Your task to perform on an android device: Open eBay Image 0: 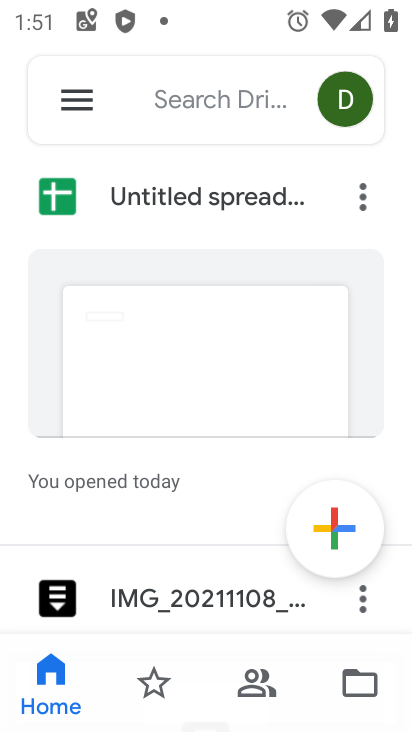
Step 0: press home button
Your task to perform on an android device: Open eBay Image 1: 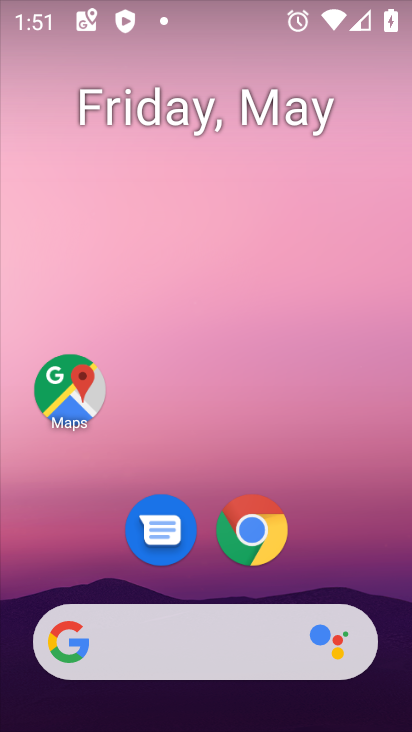
Step 1: click (257, 524)
Your task to perform on an android device: Open eBay Image 2: 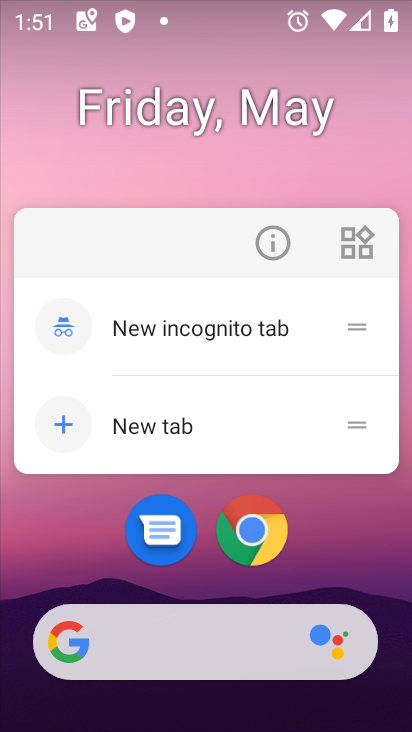
Step 2: click (273, 517)
Your task to perform on an android device: Open eBay Image 3: 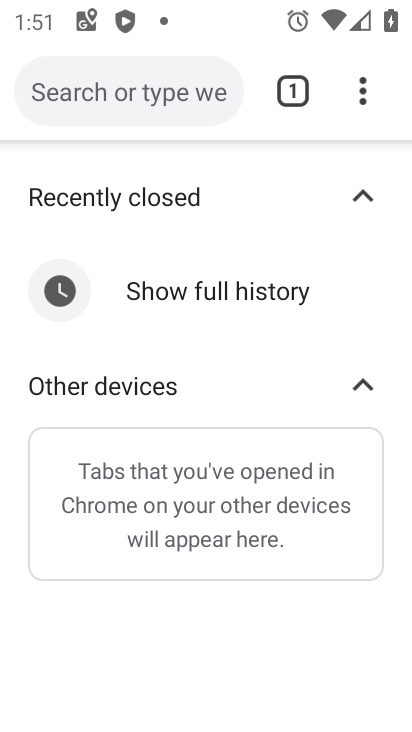
Step 3: click (148, 94)
Your task to perform on an android device: Open eBay Image 4: 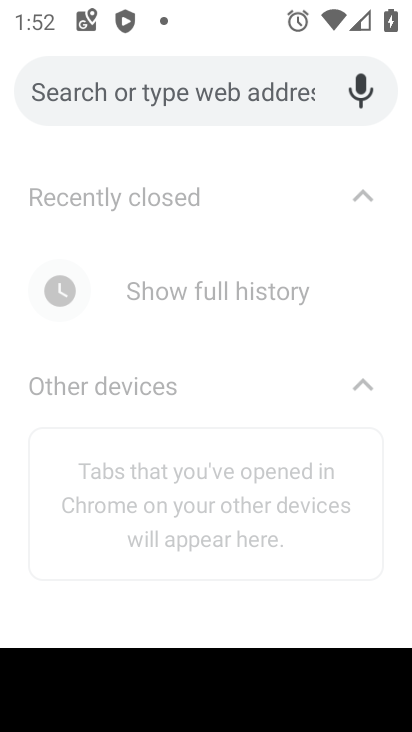
Step 4: type "ebay"
Your task to perform on an android device: Open eBay Image 5: 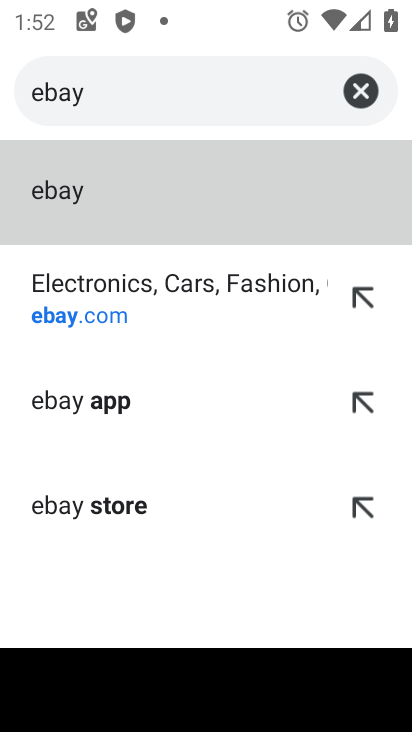
Step 5: click (127, 198)
Your task to perform on an android device: Open eBay Image 6: 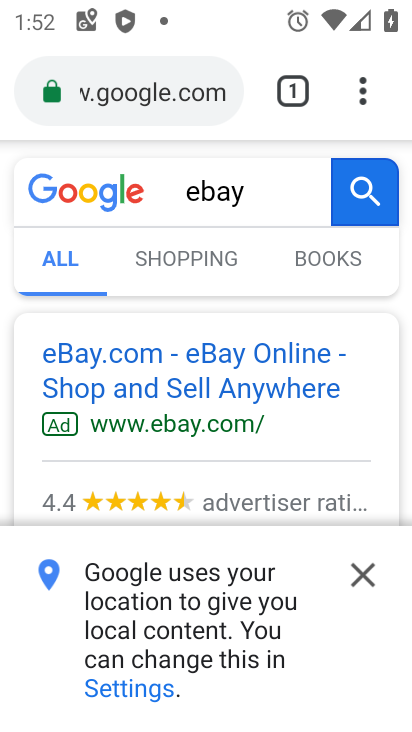
Step 6: click (160, 371)
Your task to perform on an android device: Open eBay Image 7: 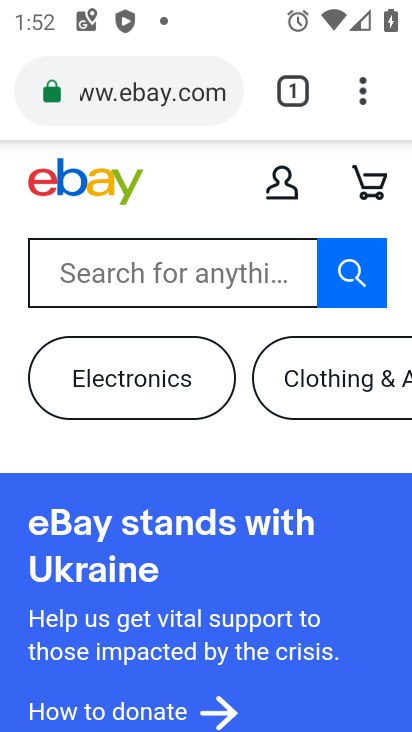
Step 7: task complete